Your task to perform on an android device: find photos in the google photos app Image 0: 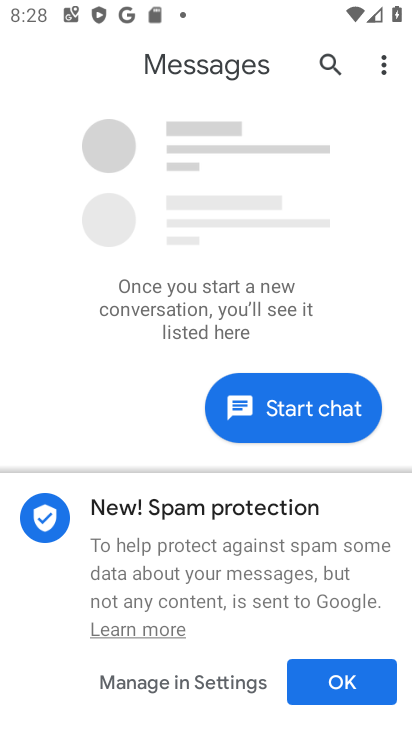
Step 0: press home button
Your task to perform on an android device: find photos in the google photos app Image 1: 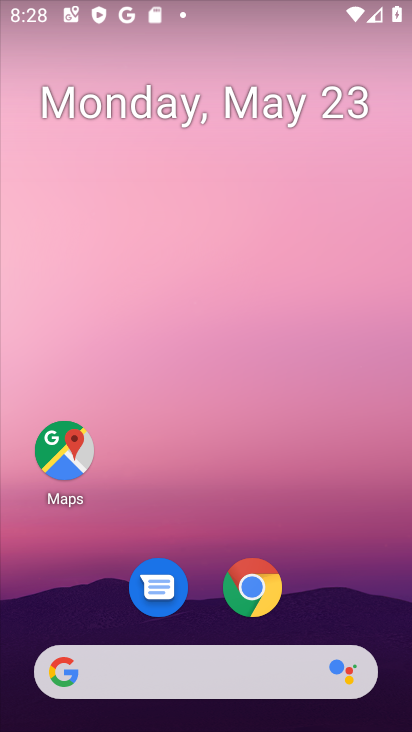
Step 1: drag from (196, 562) to (232, 162)
Your task to perform on an android device: find photos in the google photos app Image 2: 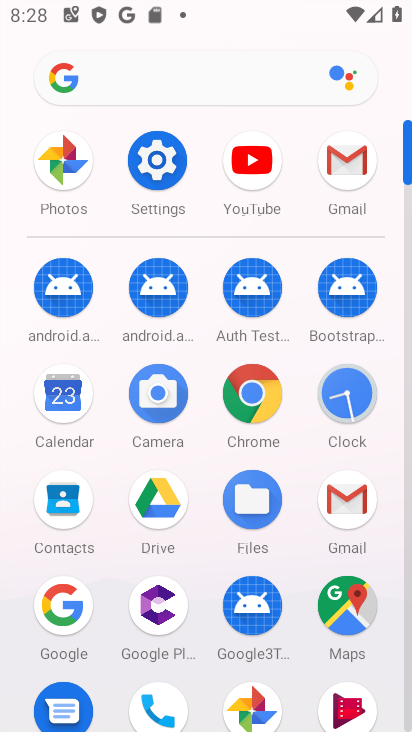
Step 2: click (249, 691)
Your task to perform on an android device: find photos in the google photos app Image 3: 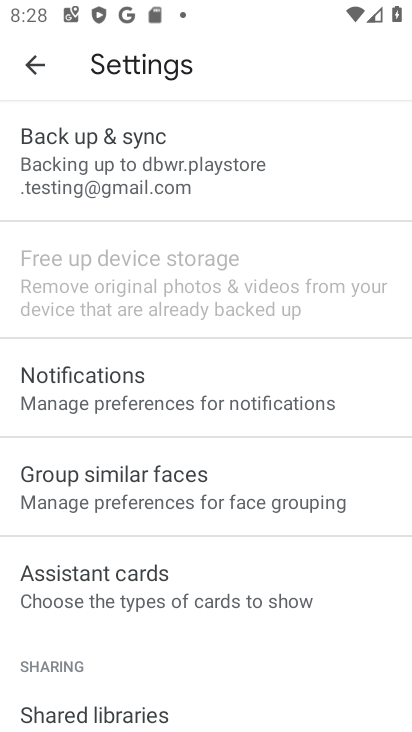
Step 3: click (30, 57)
Your task to perform on an android device: find photos in the google photos app Image 4: 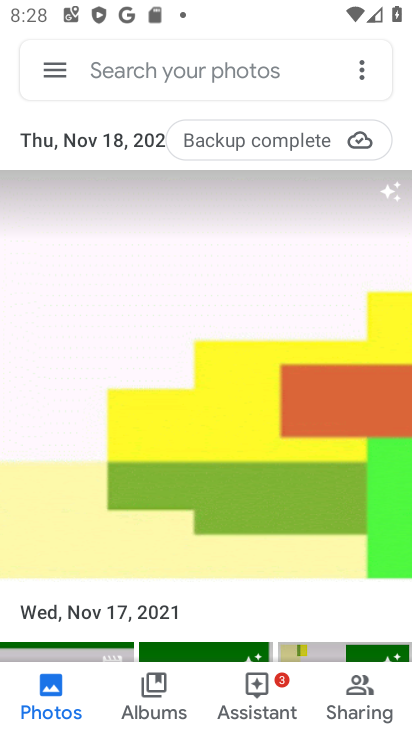
Step 4: click (45, 704)
Your task to perform on an android device: find photos in the google photos app Image 5: 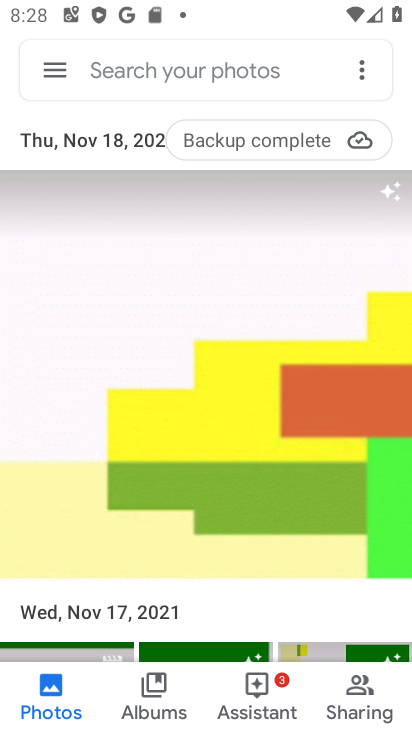
Step 5: task complete